Your task to perform on an android device: Go to eBay Image 0: 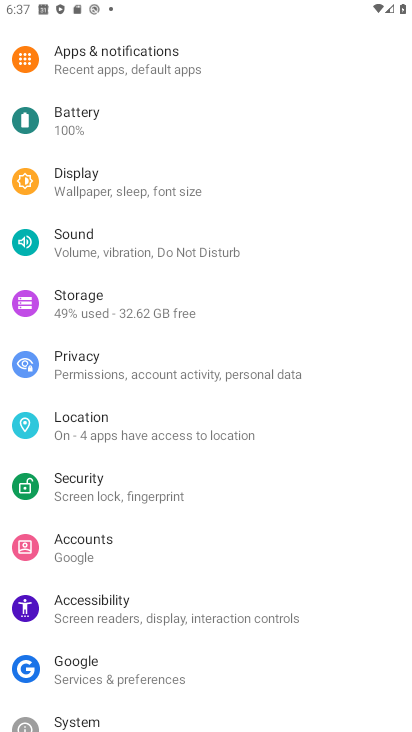
Step 0: press home button
Your task to perform on an android device: Go to eBay Image 1: 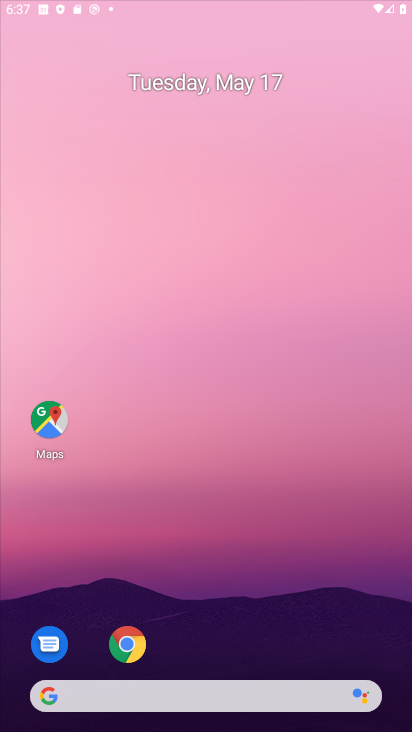
Step 1: drag from (351, 682) to (297, 207)
Your task to perform on an android device: Go to eBay Image 2: 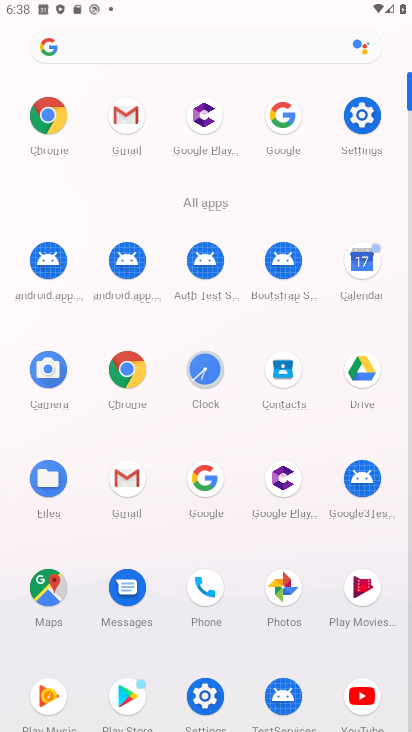
Step 2: click (212, 484)
Your task to perform on an android device: Go to eBay Image 3: 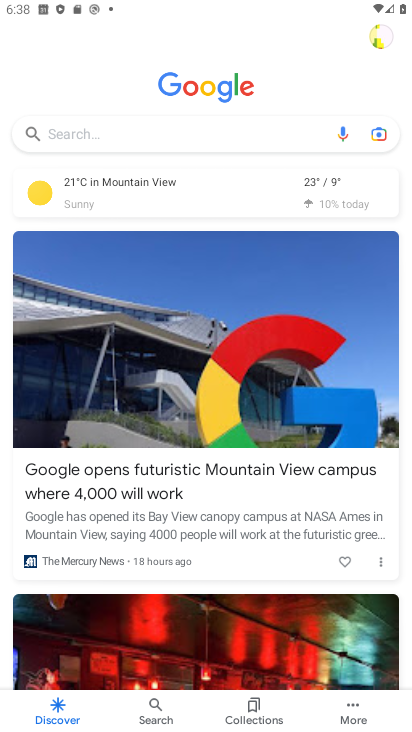
Step 3: click (121, 120)
Your task to perform on an android device: Go to eBay Image 4: 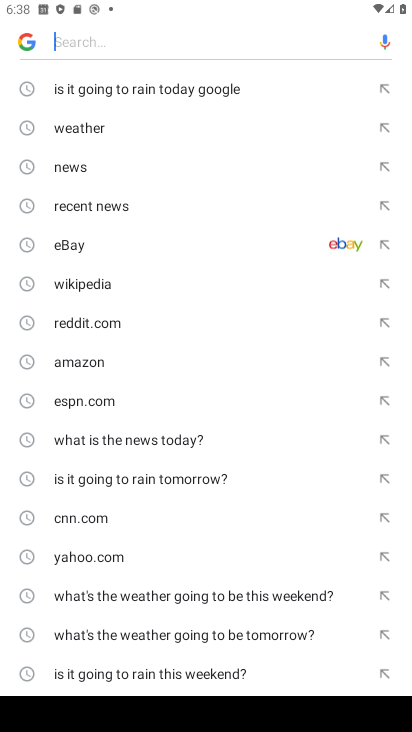
Step 4: click (83, 247)
Your task to perform on an android device: Go to eBay Image 5: 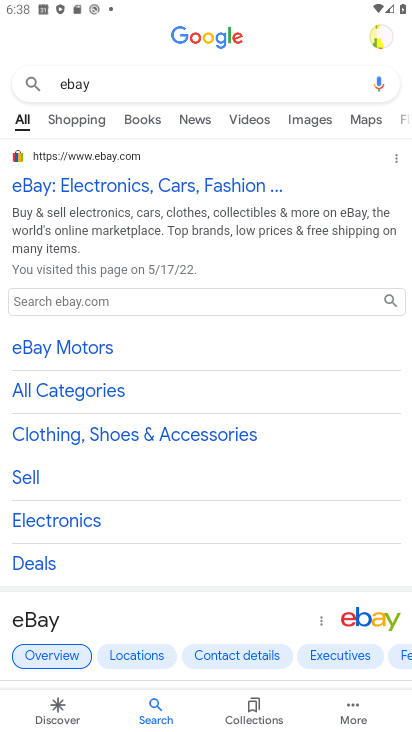
Step 5: task complete